Your task to perform on an android device: Find coffee shops on Maps Image 0: 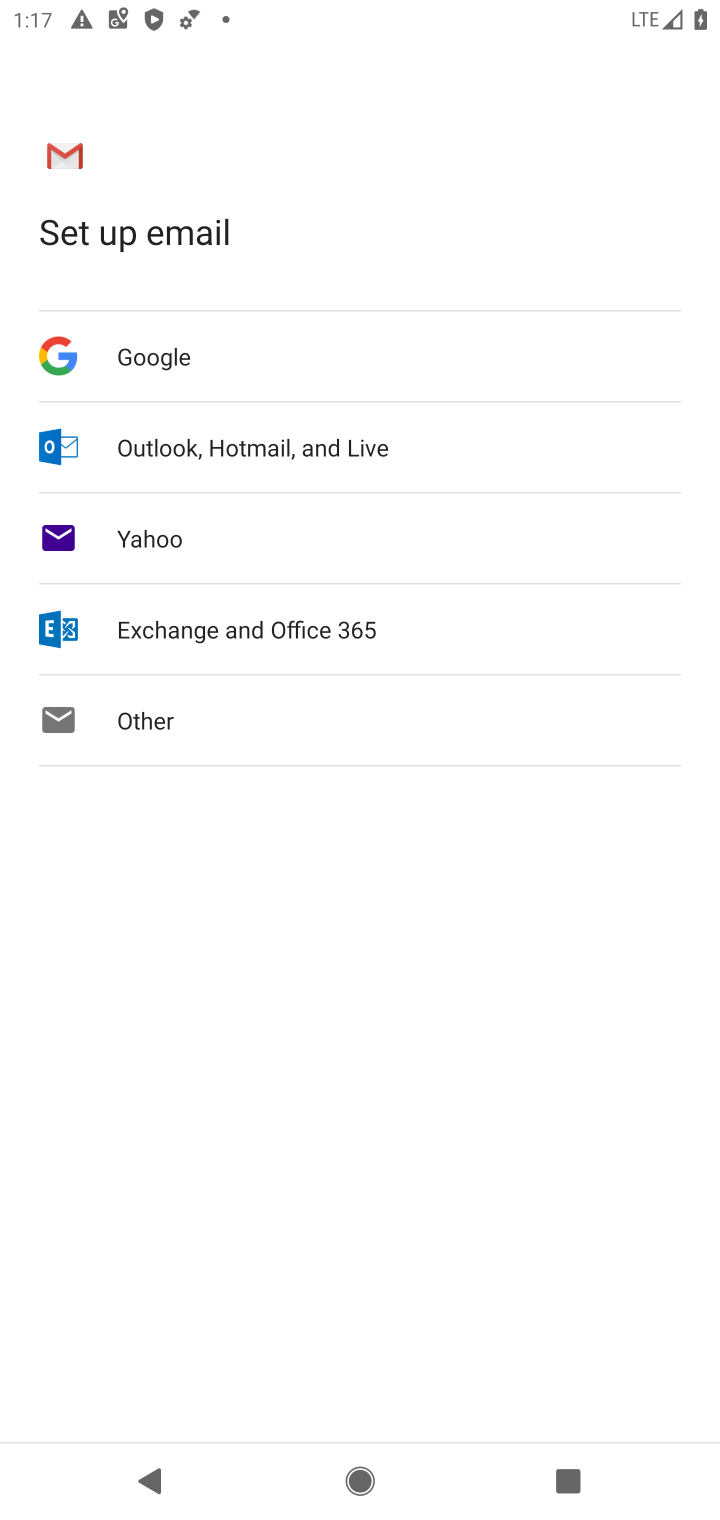
Step 0: press home button
Your task to perform on an android device: Find coffee shops on Maps Image 1: 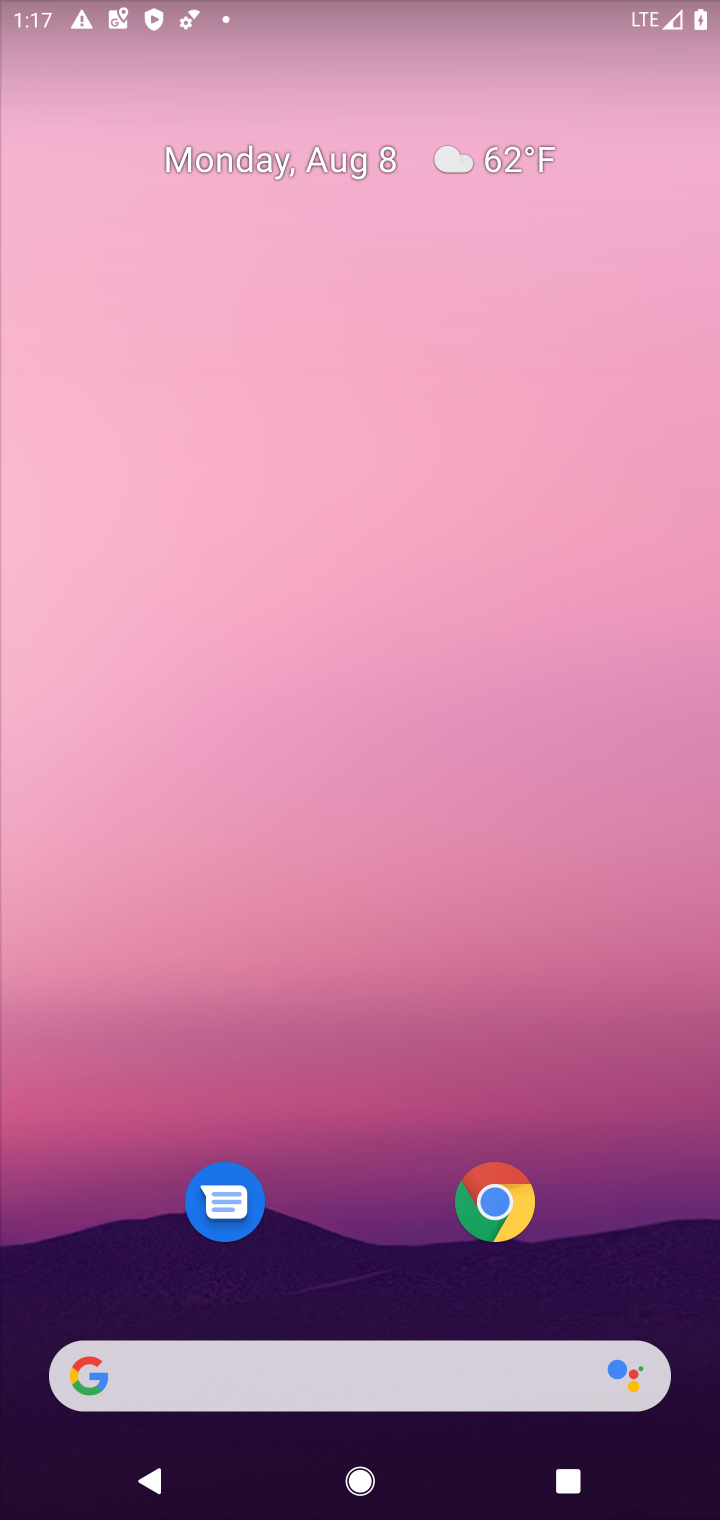
Step 1: drag from (349, 1224) to (203, 331)
Your task to perform on an android device: Find coffee shops on Maps Image 2: 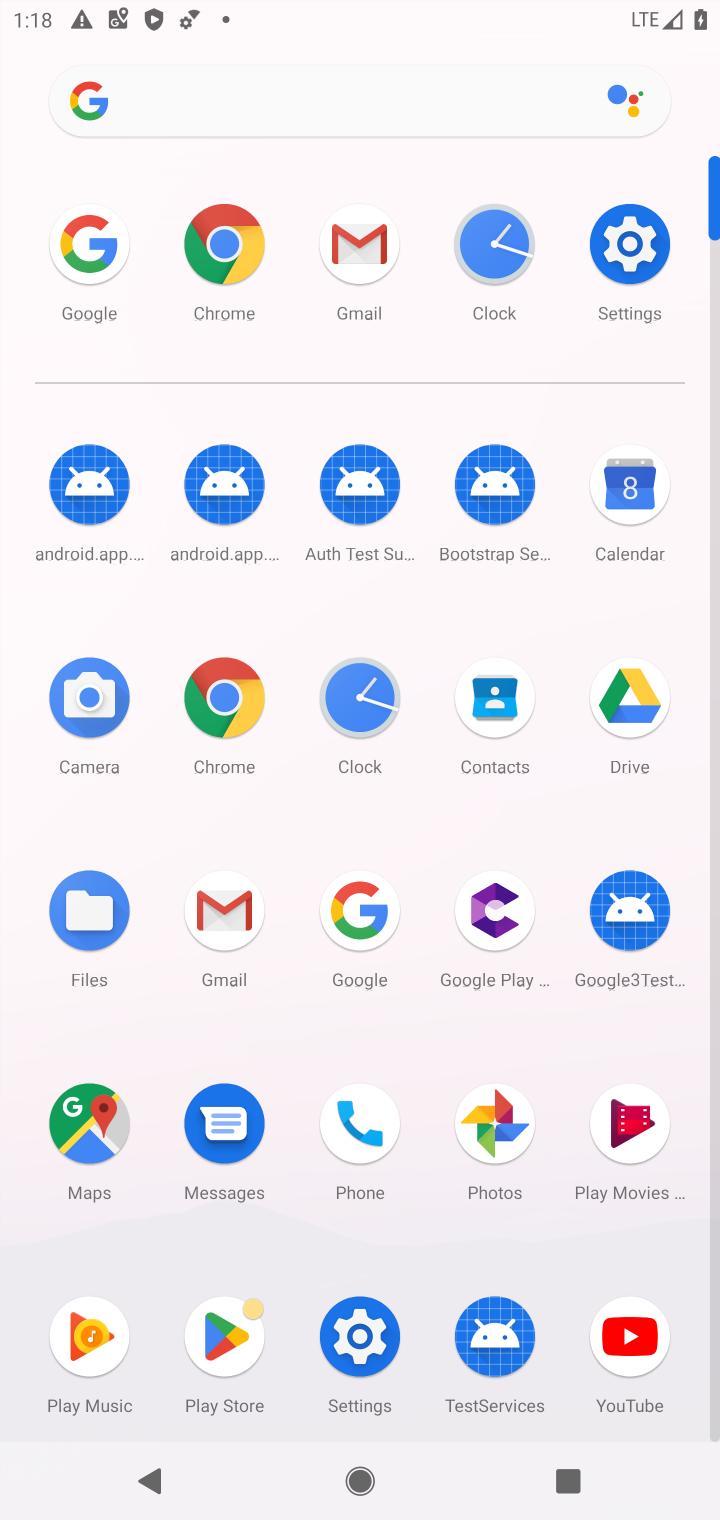
Step 2: click (91, 1115)
Your task to perform on an android device: Find coffee shops on Maps Image 3: 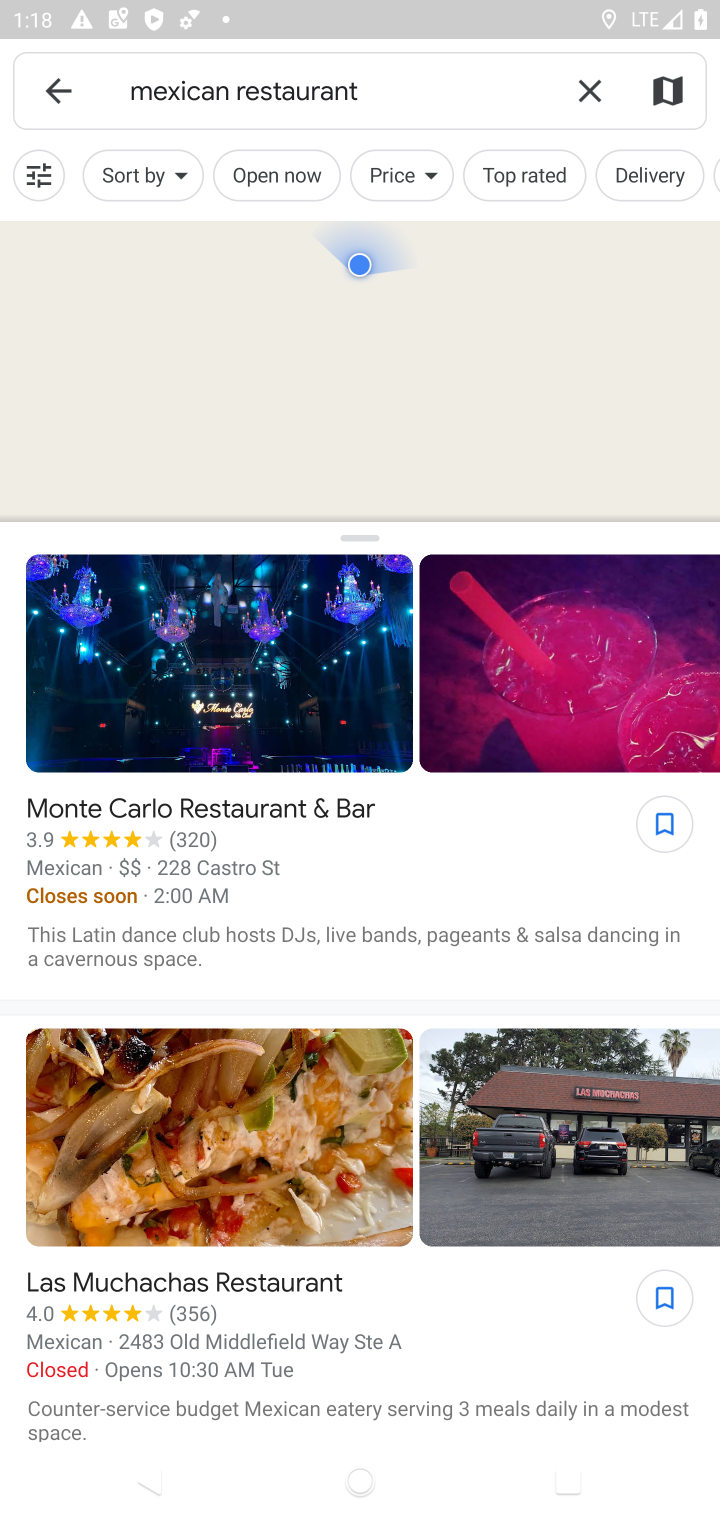
Step 3: click (53, 88)
Your task to perform on an android device: Find coffee shops on Maps Image 4: 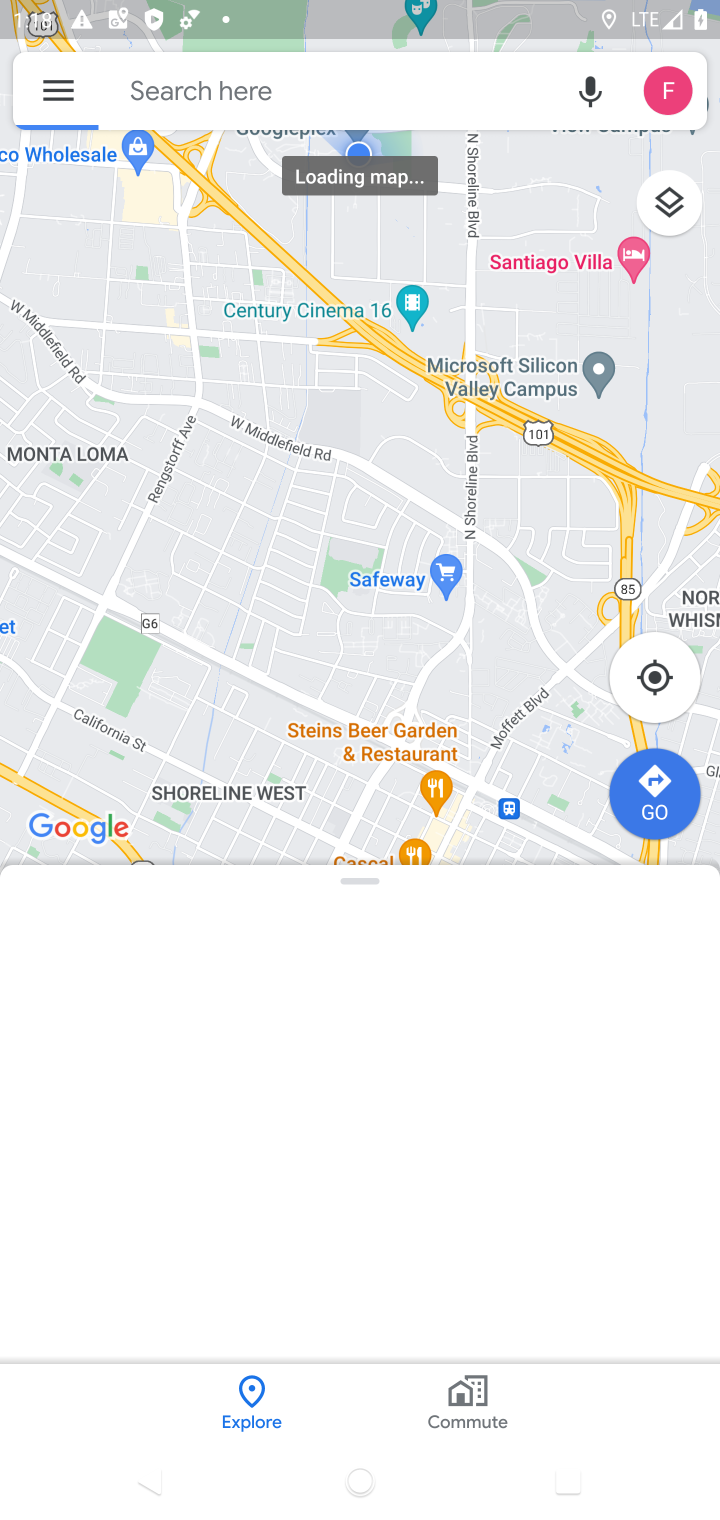
Step 4: click (195, 94)
Your task to perform on an android device: Find coffee shops on Maps Image 5: 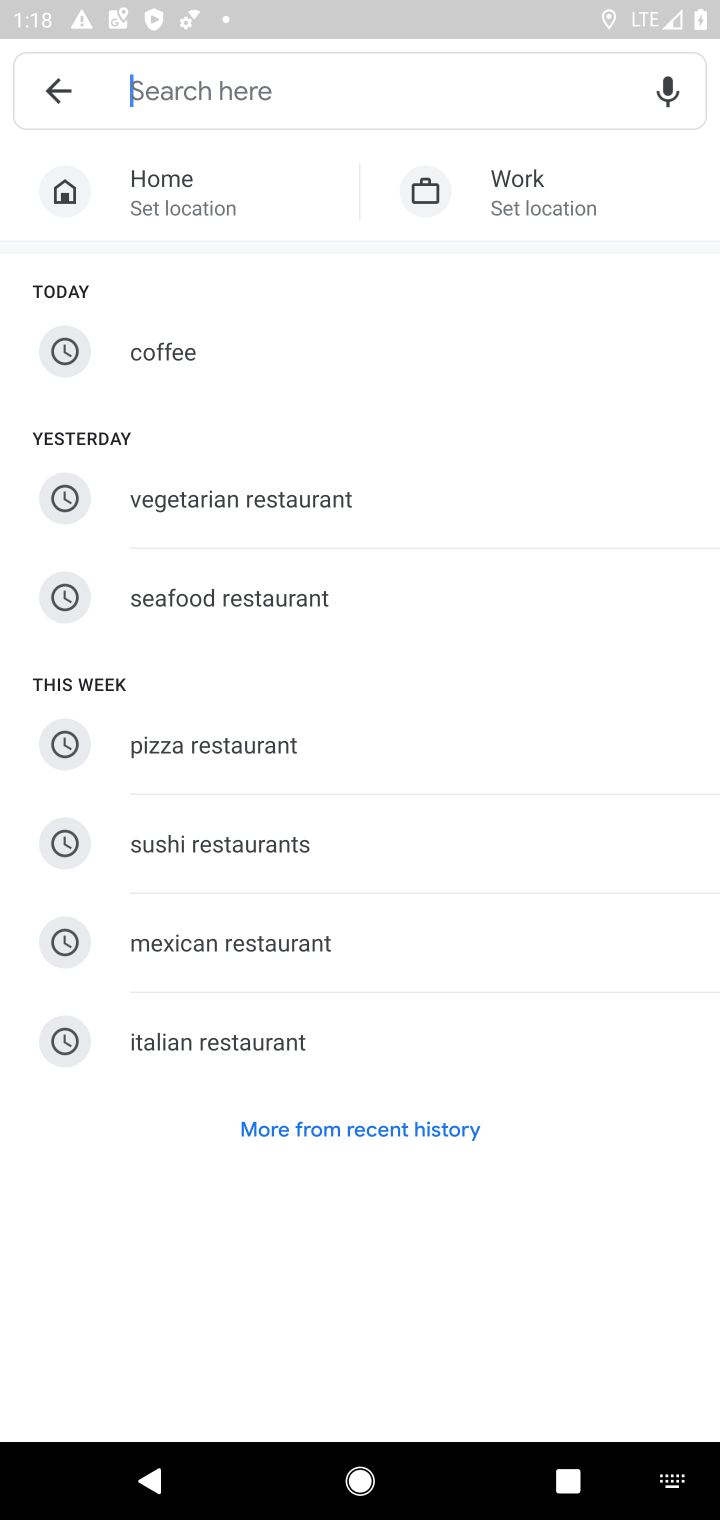
Step 5: type "coffee shops"
Your task to perform on an android device: Find coffee shops on Maps Image 6: 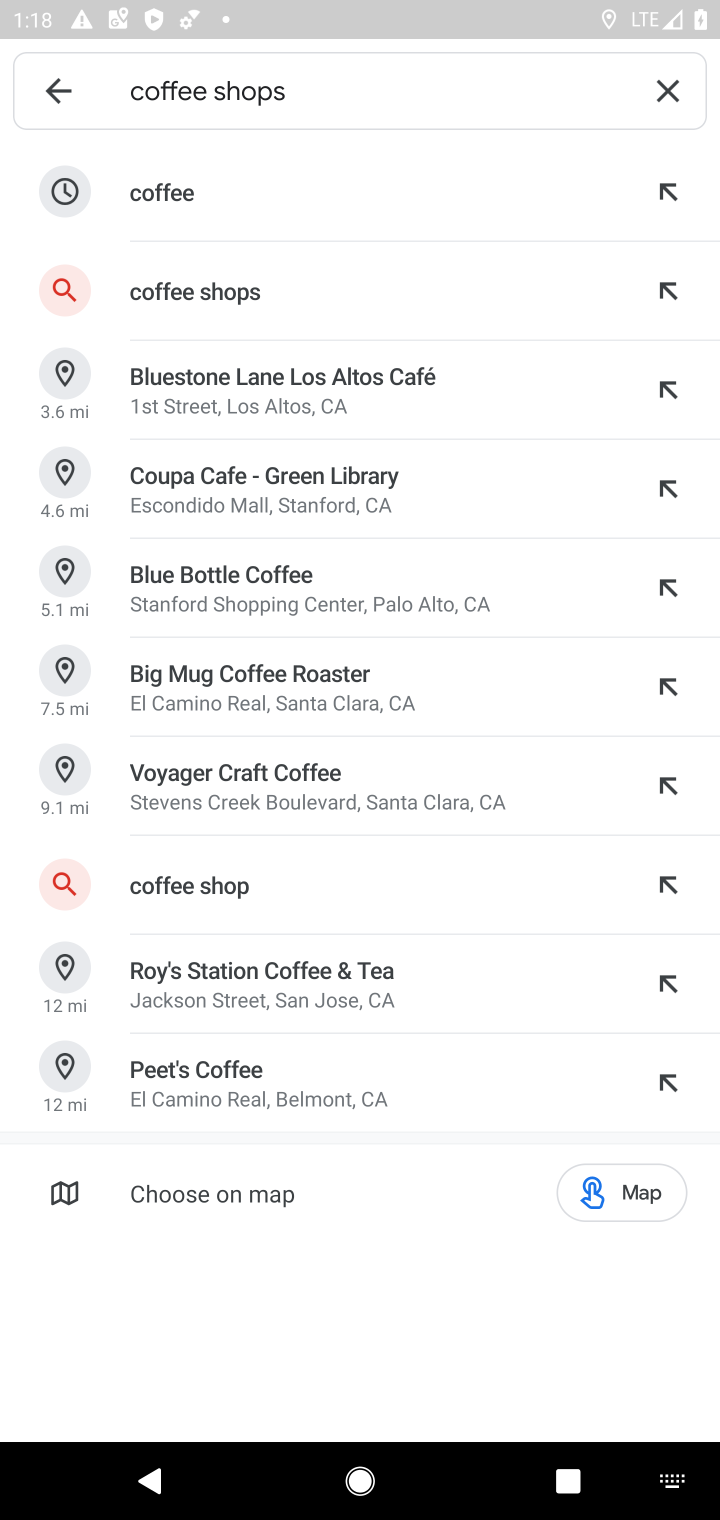
Step 6: click (230, 286)
Your task to perform on an android device: Find coffee shops on Maps Image 7: 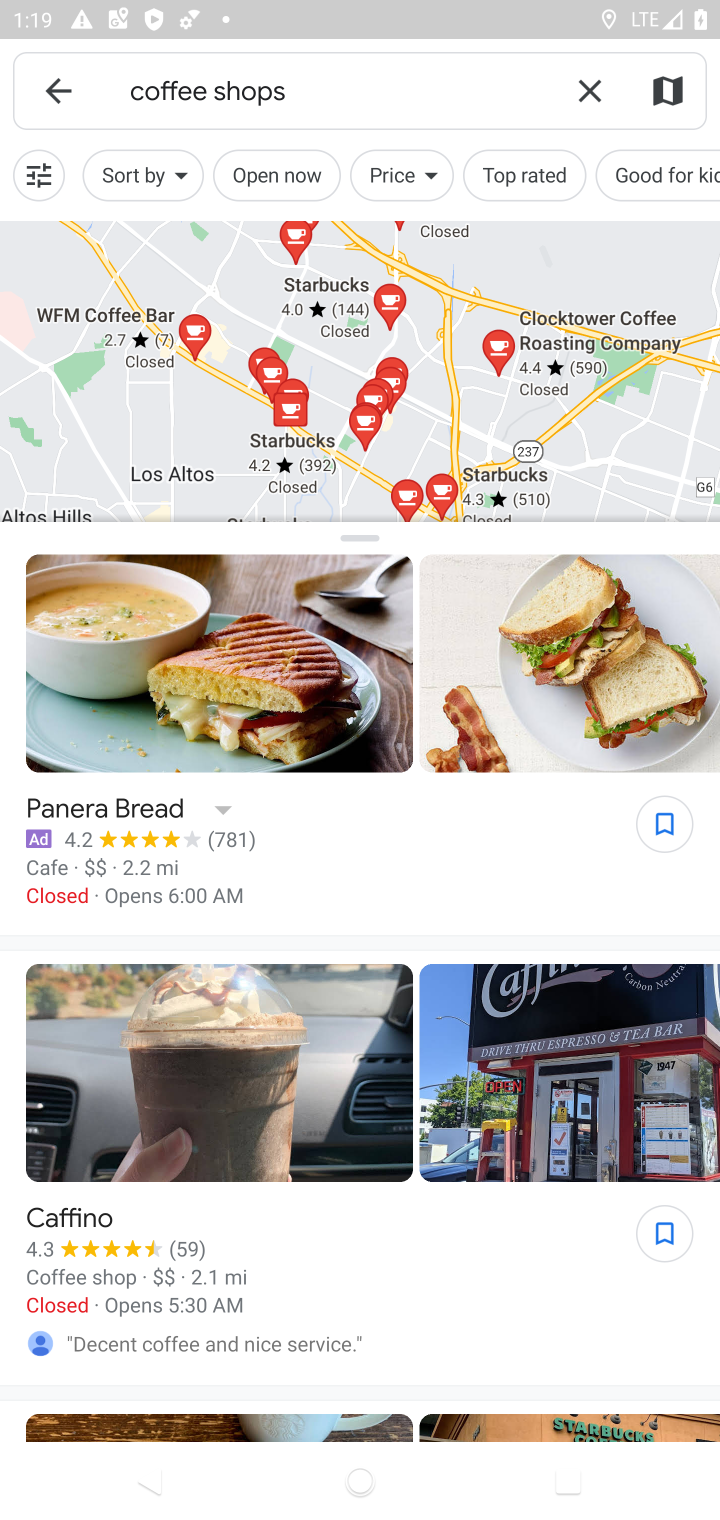
Step 7: task complete